Your task to perform on an android device: Go to notification settings Image 0: 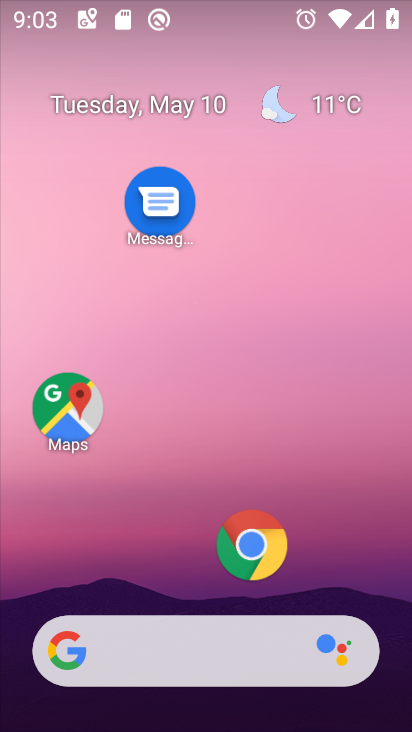
Step 0: drag from (200, 372) to (229, 13)
Your task to perform on an android device: Go to notification settings Image 1: 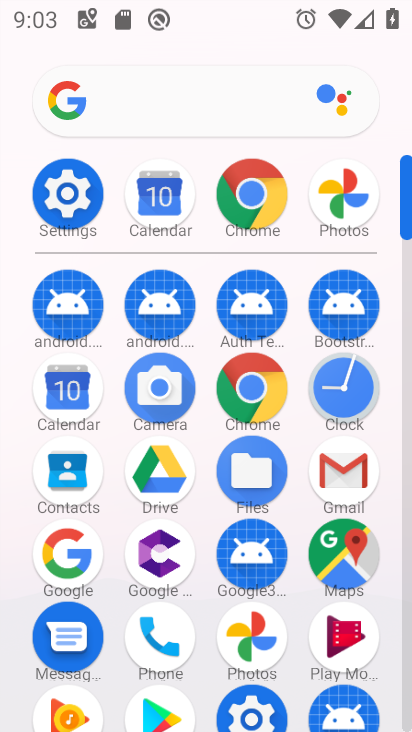
Step 1: click (73, 186)
Your task to perform on an android device: Go to notification settings Image 2: 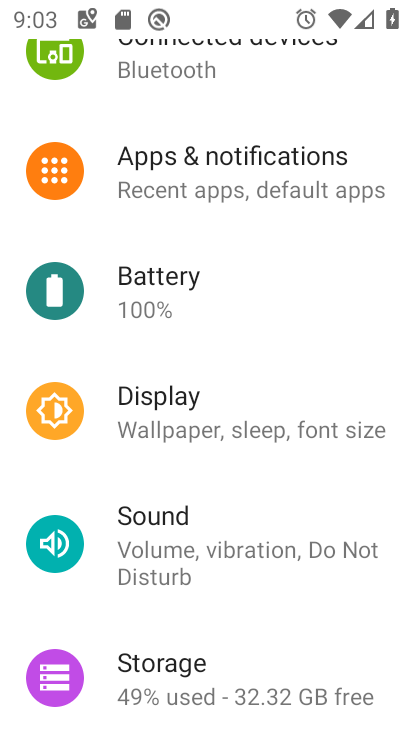
Step 2: click (197, 181)
Your task to perform on an android device: Go to notification settings Image 3: 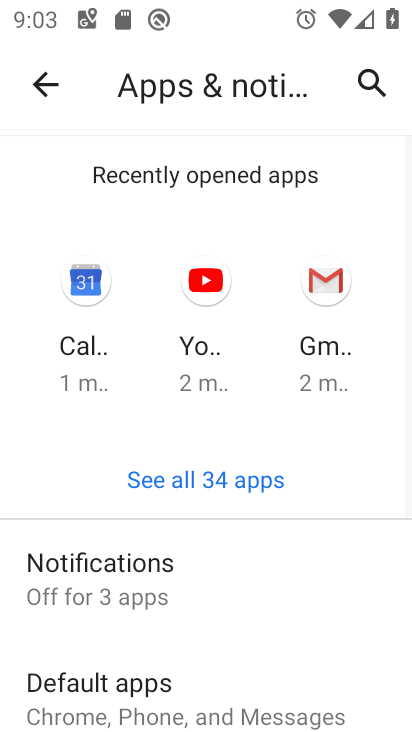
Step 3: click (180, 584)
Your task to perform on an android device: Go to notification settings Image 4: 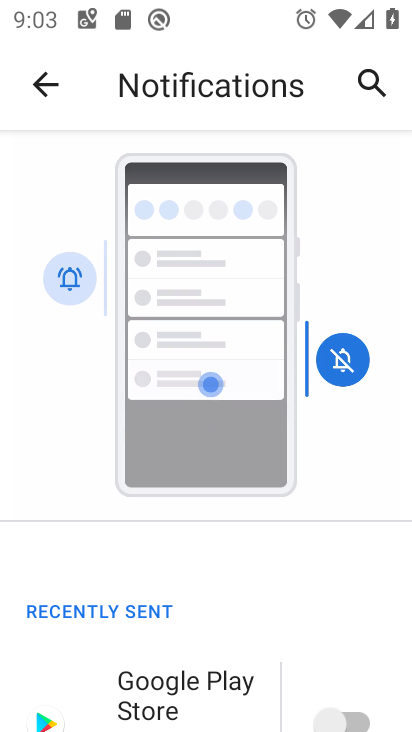
Step 4: drag from (223, 635) to (218, 138)
Your task to perform on an android device: Go to notification settings Image 5: 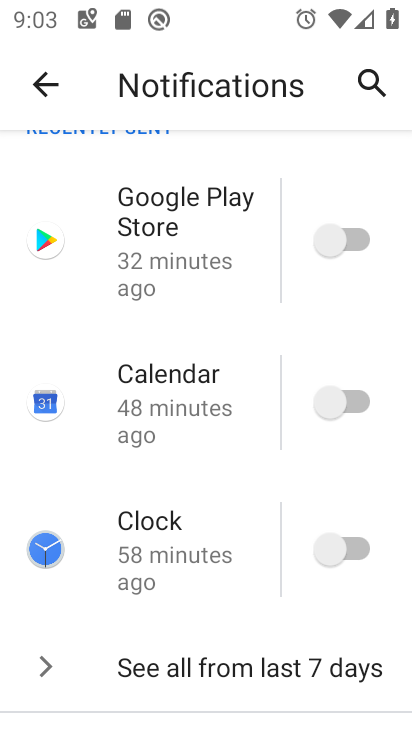
Step 5: drag from (193, 677) to (208, 250)
Your task to perform on an android device: Go to notification settings Image 6: 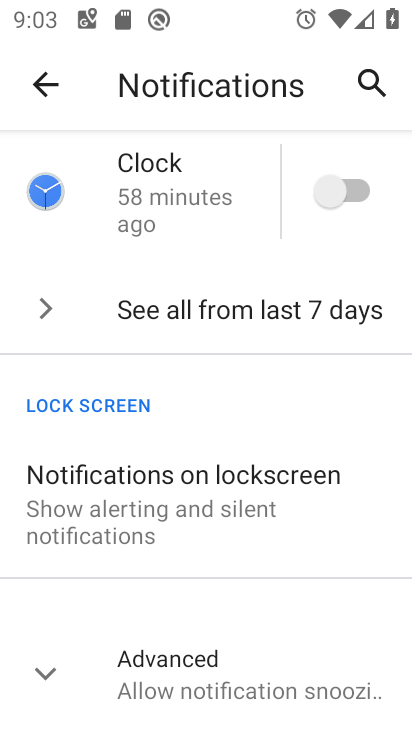
Step 6: click (57, 677)
Your task to perform on an android device: Go to notification settings Image 7: 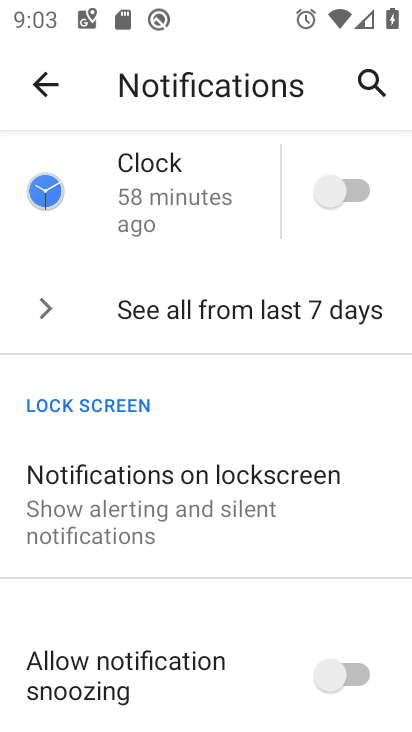
Step 7: task complete